Your task to perform on an android device: turn on sleep mode Image 0: 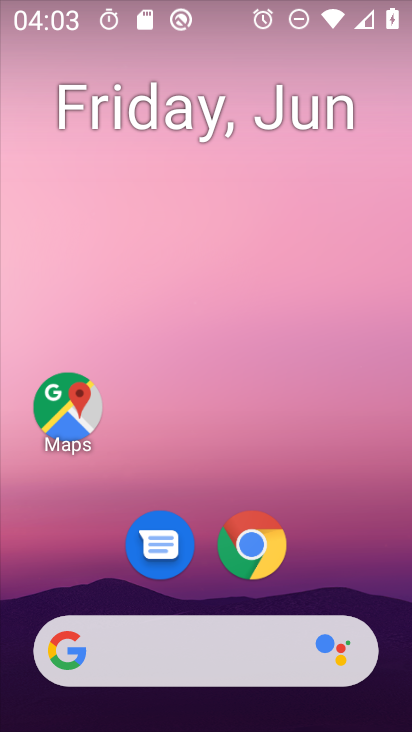
Step 0: drag from (313, 572) to (252, 27)
Your task to perform on an android device: turn on sleep mode Image 1: 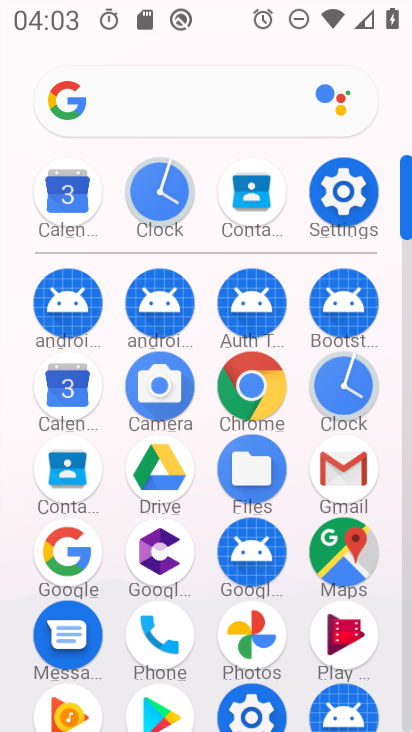
Step 1: click (340, 176)
Your task to perform on an android device: turn on sleep mode Image 2: 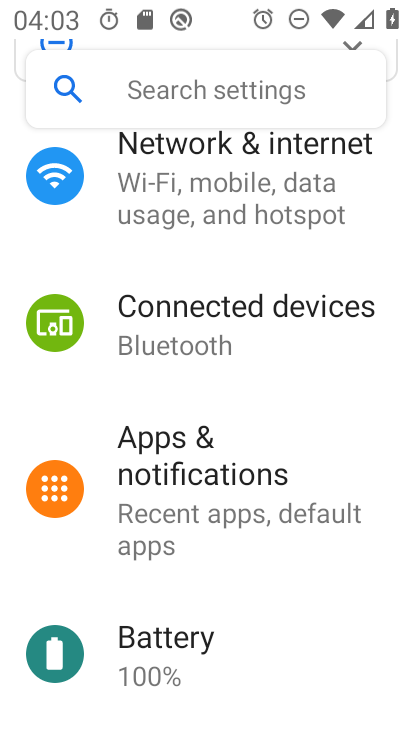
Step 2: task complete